Your task to perform on an android device: Search for pizza restaurants on Maps Image 0: 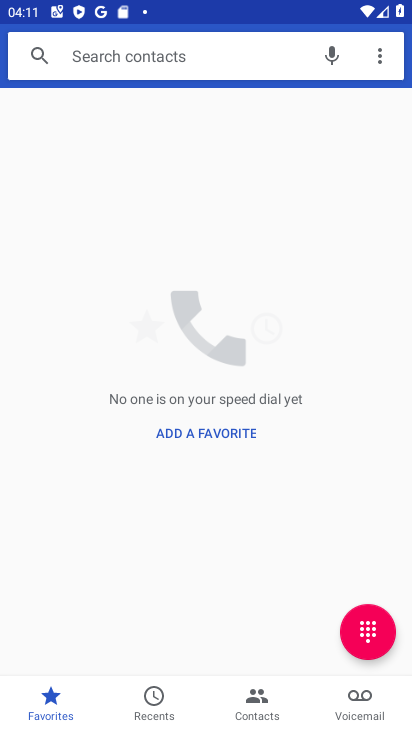
Step 0: press home button
Your task to perform on an android device: Search for pizza restaurants on Maps Image 1: 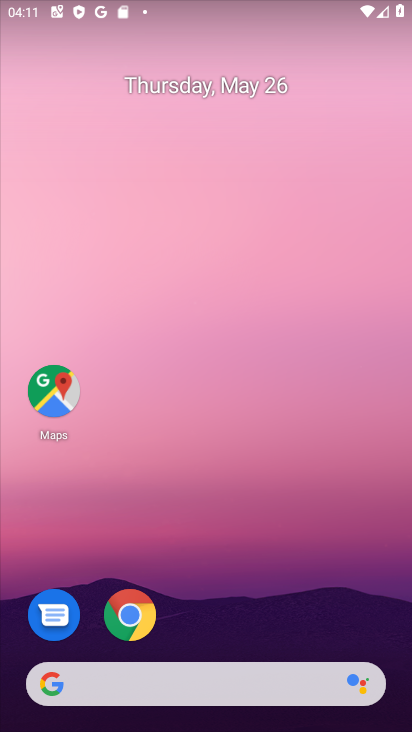
Step 1: click (68, 404)
Your task to perform on an android device: Search for pizza restaurants on Maps Image 2: 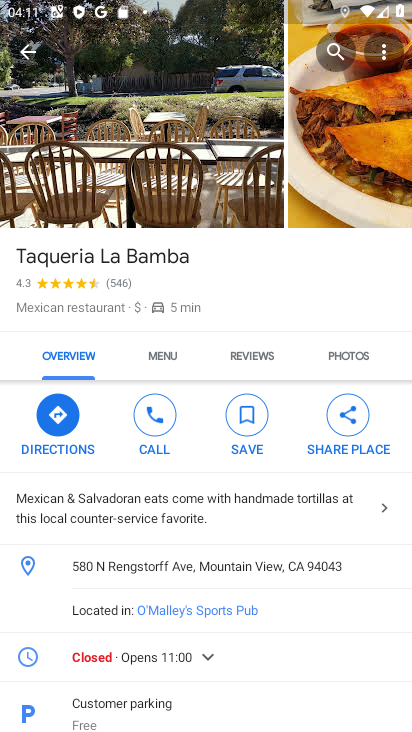
Step 2: press back button
Your task to perform on an android device: Search for pizza restaurants on Maps Image 3: 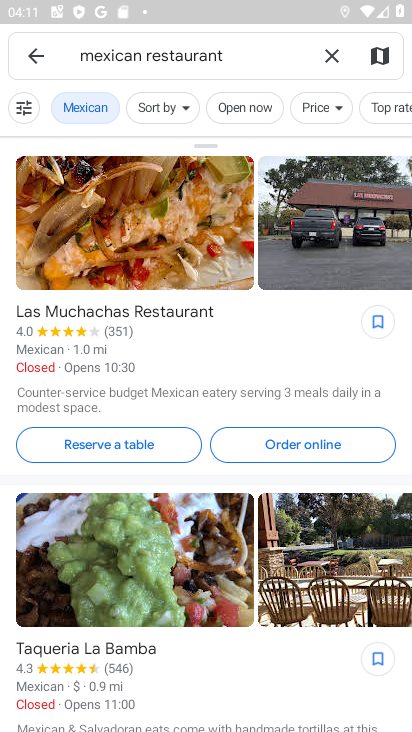
Step 3: click (331, 60)
Your task to perform on an android device: Search for pizza restaurants on Maps Image 4: 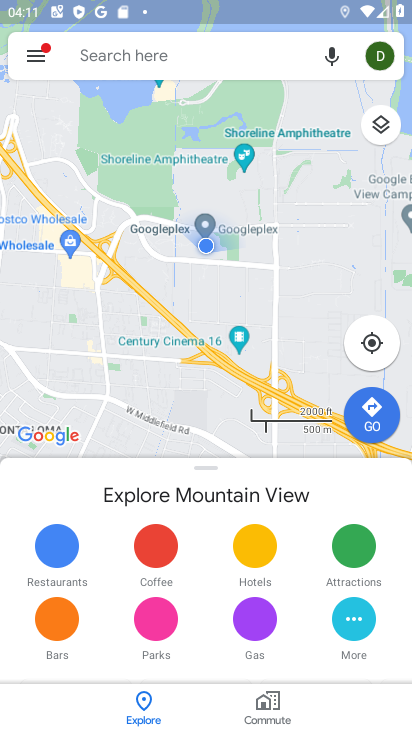
Step 4: click (122, 56)
Your task to perform on an android device: Search for pizza restaurants on Maps Image 5: 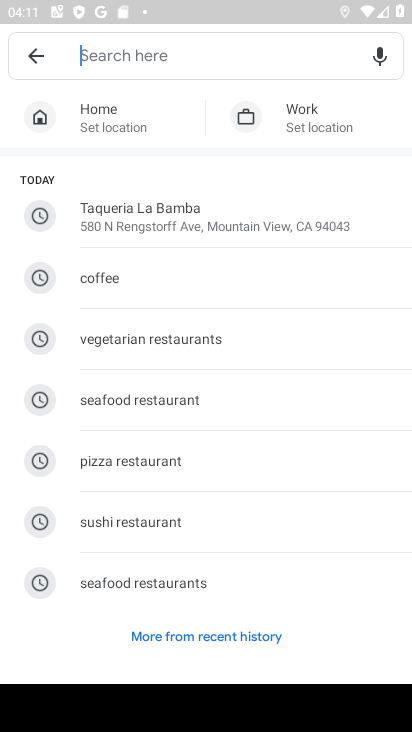
Step 5: click (161, 462)
Your task to perform on an android device: Search for pizza restaurants on Maps Image 6: 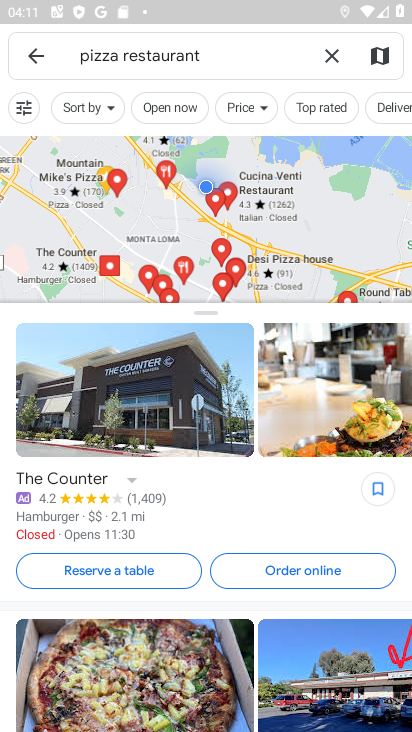
Step 6: task complete